Your task to perform on an android device: Show me the alarms in the clock app Image 0: 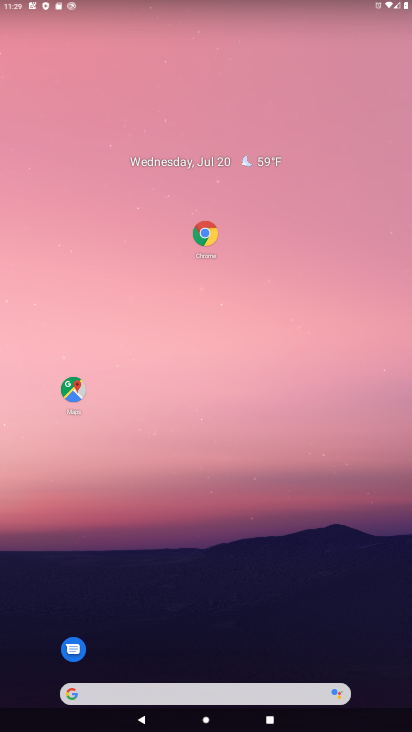
Step 0: drag from (216, 616) to (254, 119)
Your task to perform on an android device: Show me the alarms in the clock app Image 1: 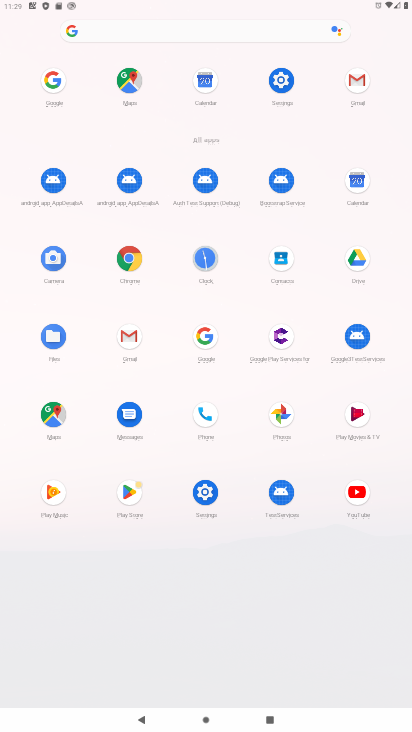
Step 1: click (206, 263)
Your task to perform on an android device: Show me the alarms in the clock app Image 2: 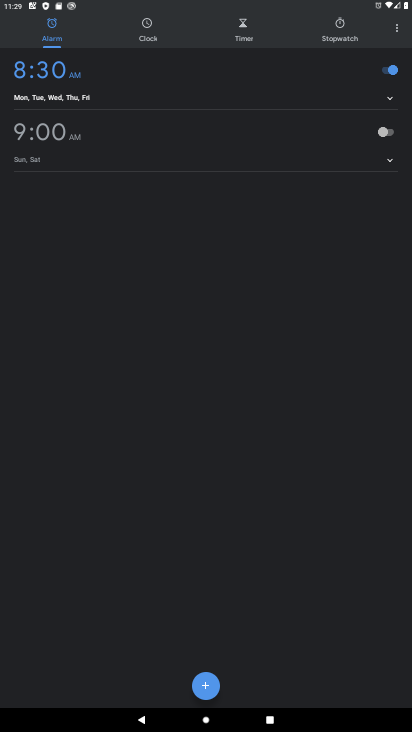
Step 2: task complete